Your task to perform on an android device: check out phone information Image 0: 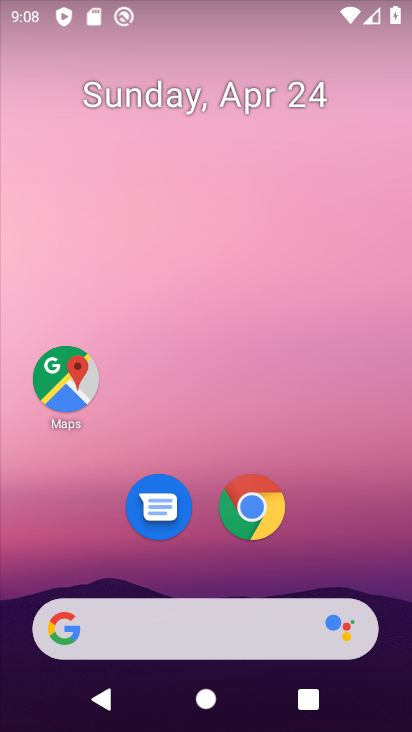
Step 0: drag from (336, 560) to (397, 138)
Your task to perform on an android device: check out phone information Image 1: 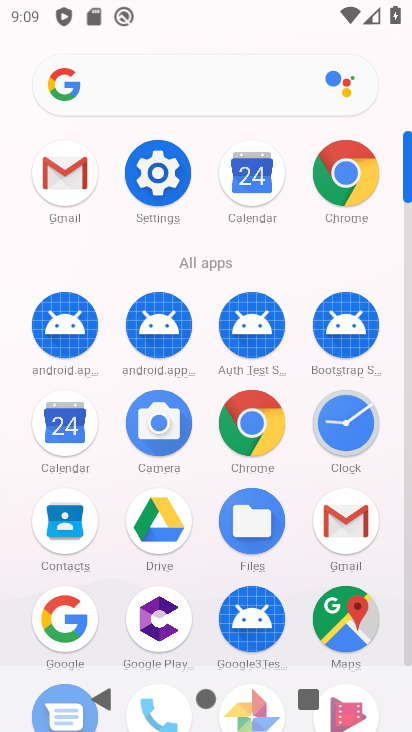
Step 1: click (163, 169)
Your task to perform on an android device: check out phone information Image 2: 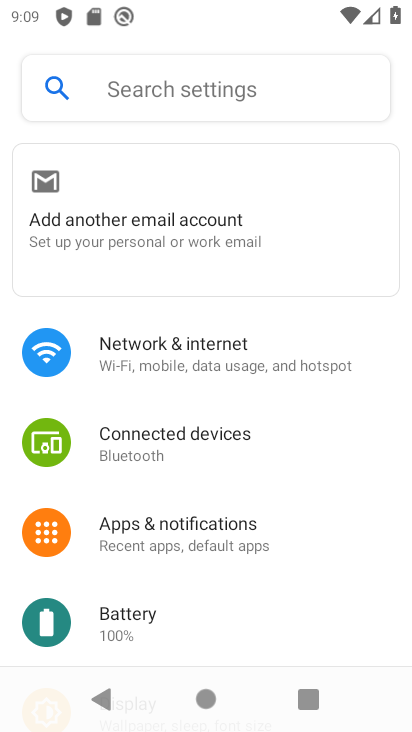
Step 2: drag from (185, 581) to (203, 224)
Your task to perform on an android device: check out phone information Image 3: 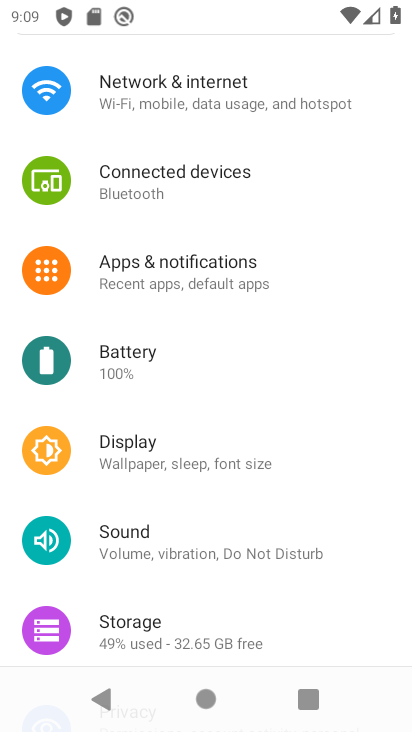
Step 3: drag from (195, 579) to (200, 226)
Your task to perform on an android device: check out phone information Image 4: 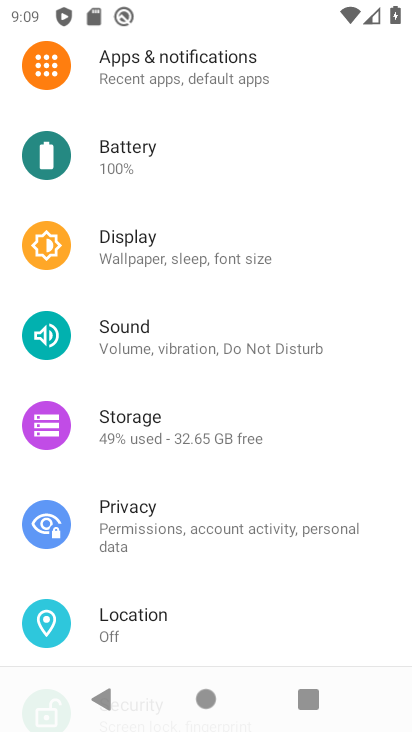
Step 4: drag from (228, 617) to (288, 200)
Your task to perform on an android device: check out phone information Image 5: 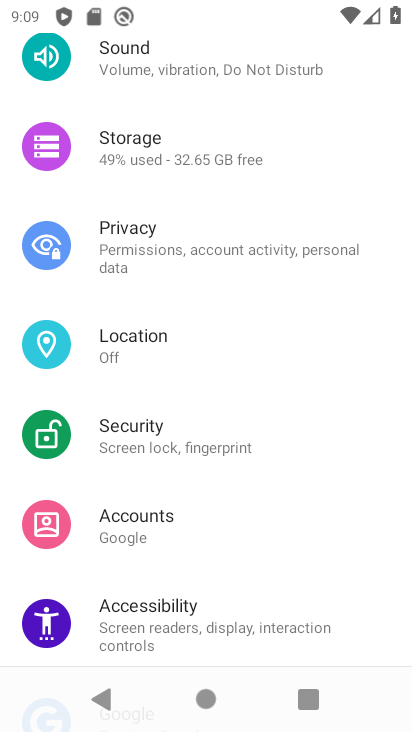
Step 5: drag from (216, 650) to (264, 165)
Your task to perform on an android device: check out phone information Image 6: 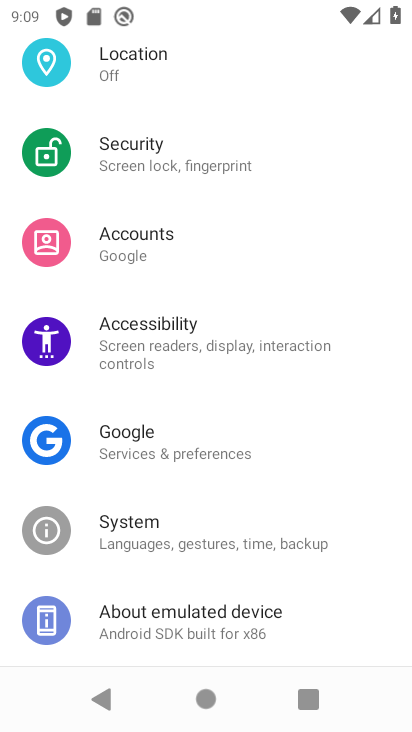
Step 6: drag from (234, 539) to (285, 88)
Your task to perform on an android device: check out phone information Image 7: 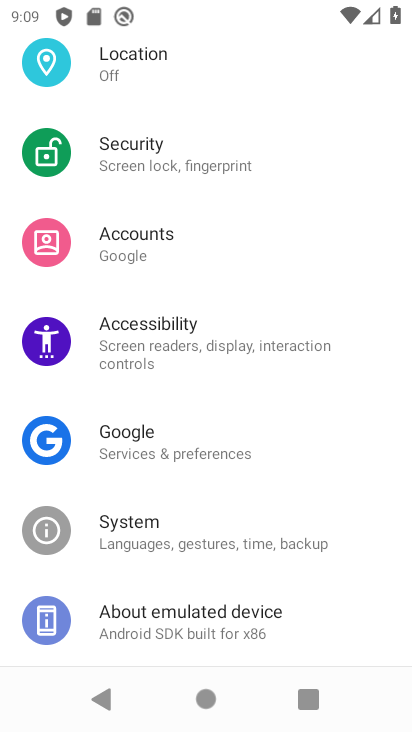
Step 7: click (164, 632)
Your task to perform on an android device: check out phone information Image 8: 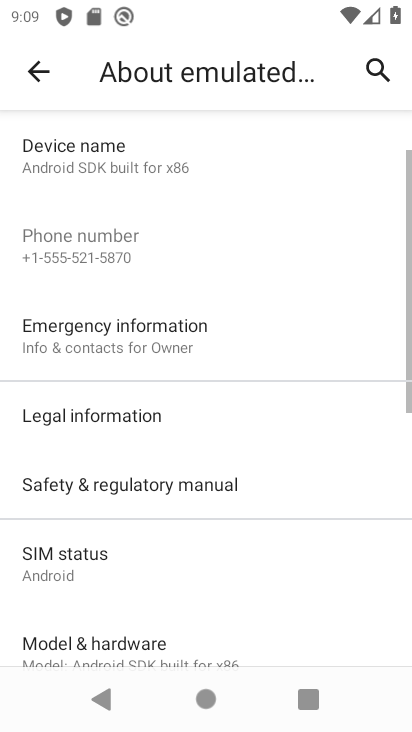
Step 8: task complete